Your task to perform on an android device: set an alarm Image 0: 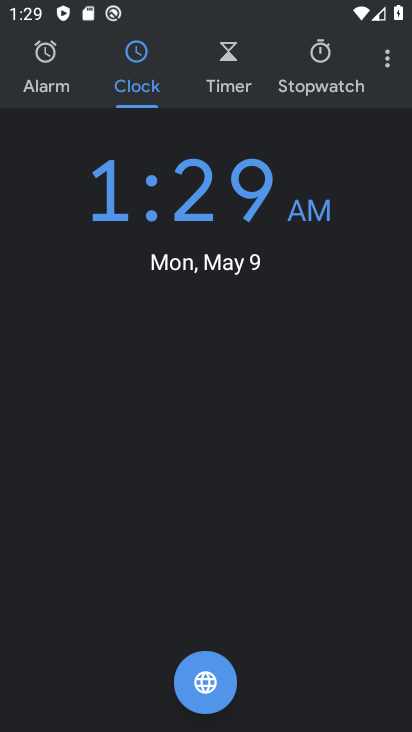
Step 0: click (33, 81)
Your task to perform on an android device: set an alarm Image 1: 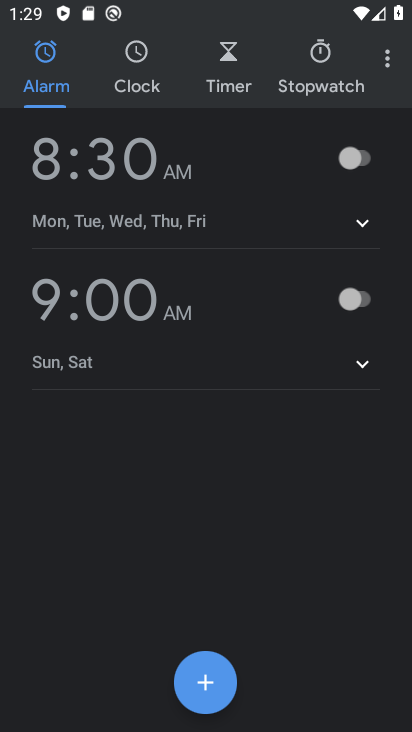
Step 1: click (206, 673)
Your task to perform on an android device: set an alarm Image 2: 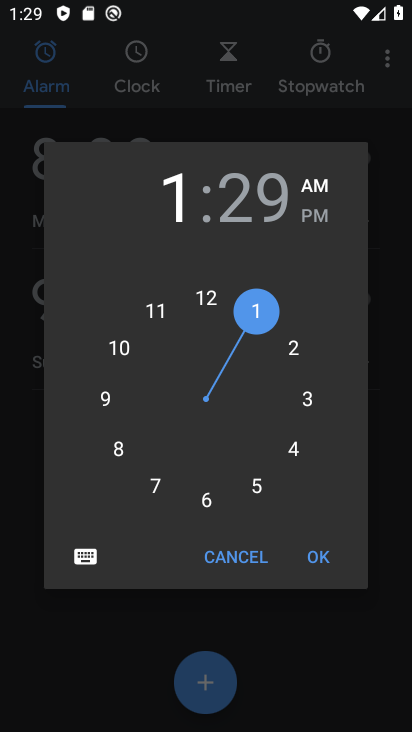
Step 2: drag from (260, 317) to (300, 548)
Your task to perform on an android device: set an alarm Image 3: 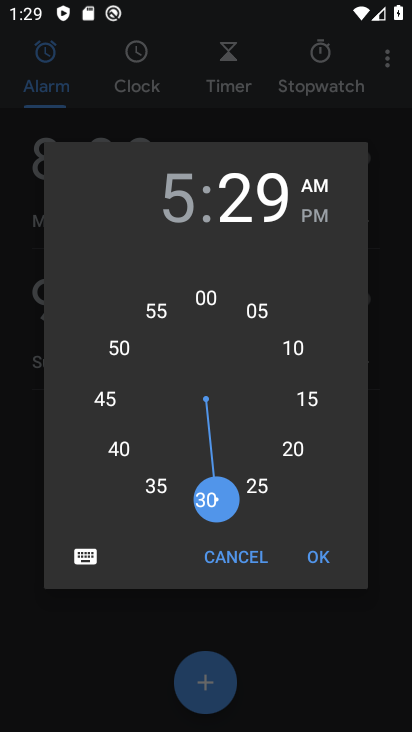
Step 3: click (332, 564)
Your task to perform on an android device: set an alarm Image 4: 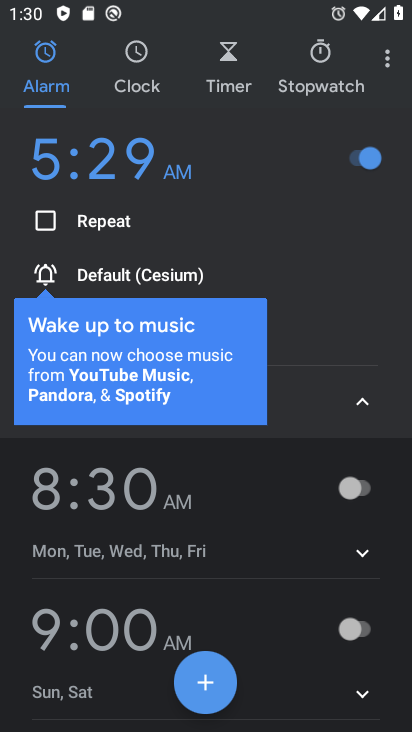
Step 4: task complete